Your task to perform on an android device: What's the weather going to be this weekend? Image 0: 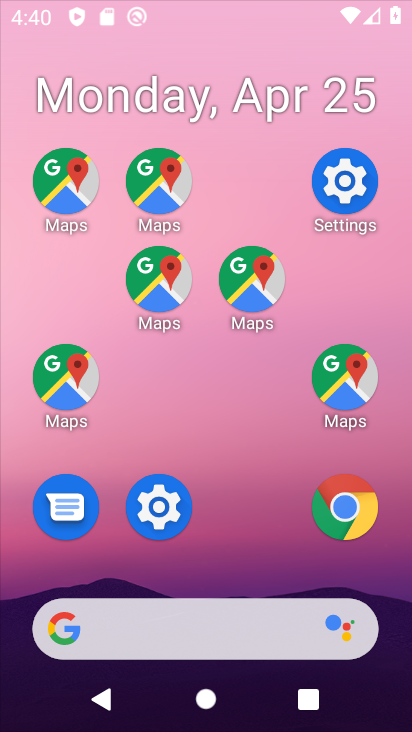
Step 0: click (330, 7)
Your task to perform on an android device: What's the weather going to be this weekend? Image 1: 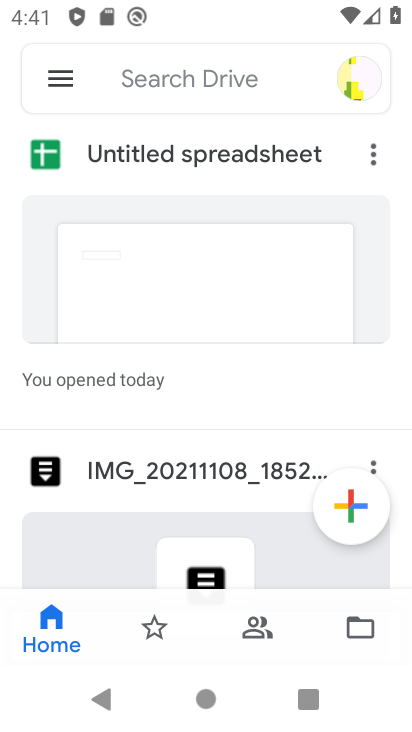
Step 1: press home button
Your task to perform on an android device: What's the weather going to be this weekend? Image 2: 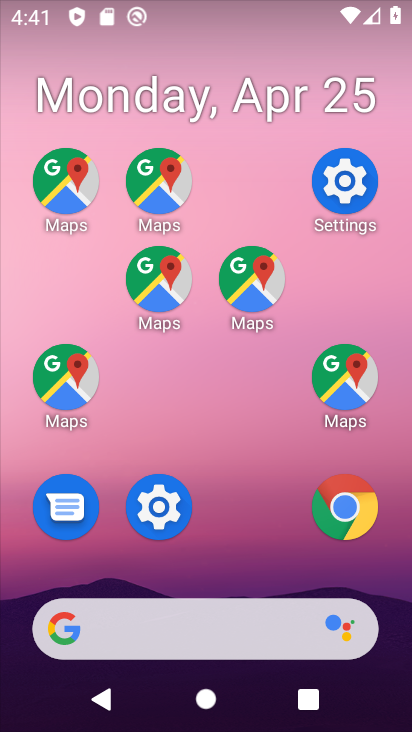
Step 2: drag from (226, 708) to (195, 163)
Your task to perform on an android device: What's the weather going to be this weekend? Image 3: 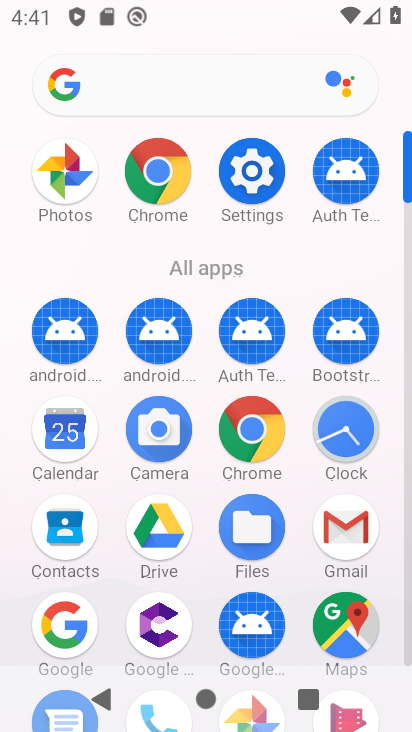
Step 3: press home button
Your task to perform on an android device: What's the weather going to be this weekend? Image 4: 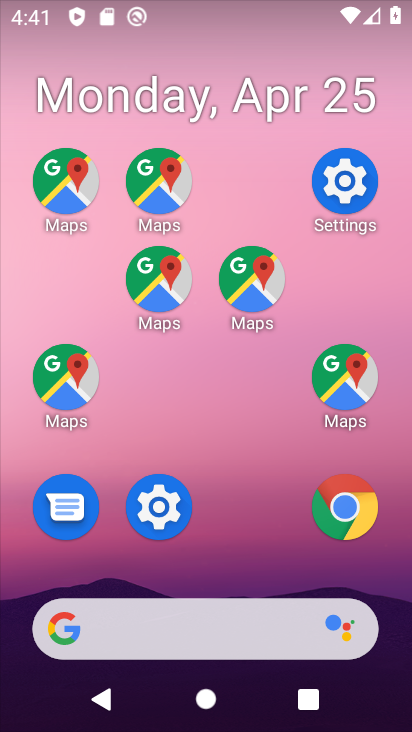
Step 4: drag from (8, 188) to (406, 391)
Your task to perform on an android device: What's the weather going to be this weekend? Image 5: 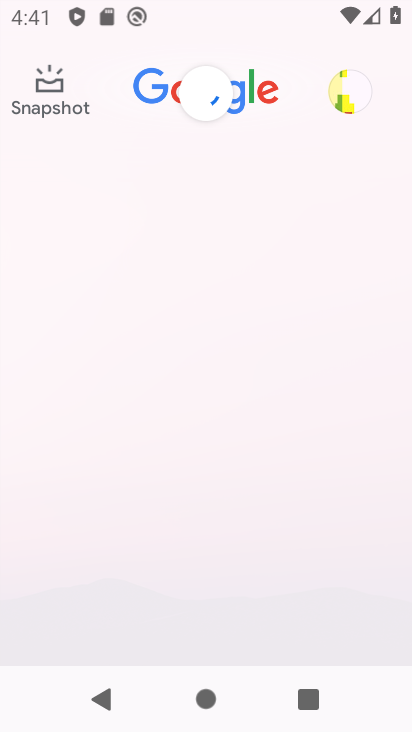
Step 5: drag from (18, 233) to (361, 417)
Your task to perform on an android device: What's the weather going to be this weekend? Image 6: 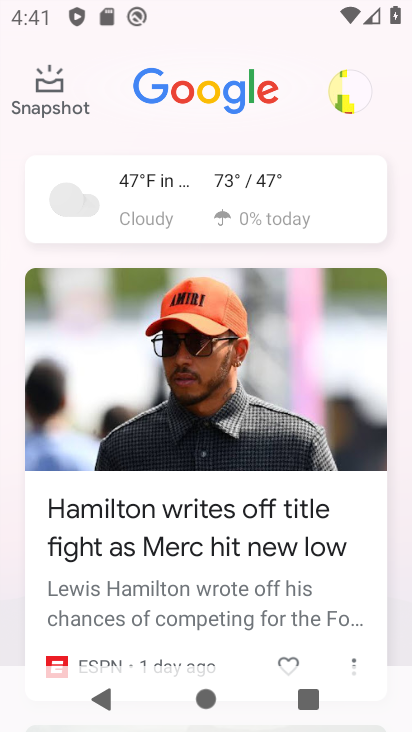
Step 6: click (252, 174)
Your task to perform on an android device: What's the weather going to be this weekend? Image 7: 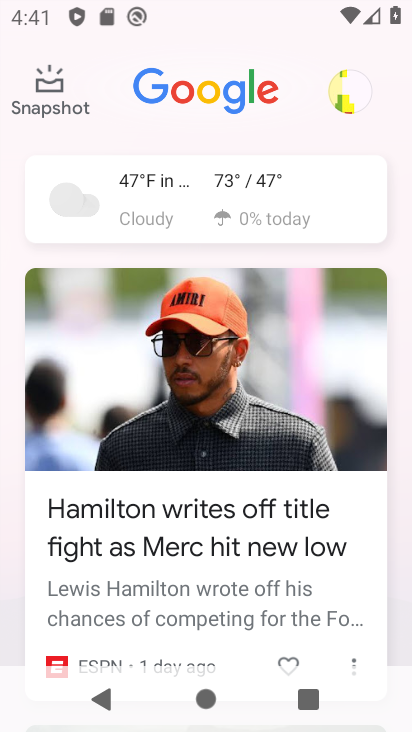
Step 7: click (252, 174)
Your task to perform on an android device: What's the weather going to be this weekend? Image 8: 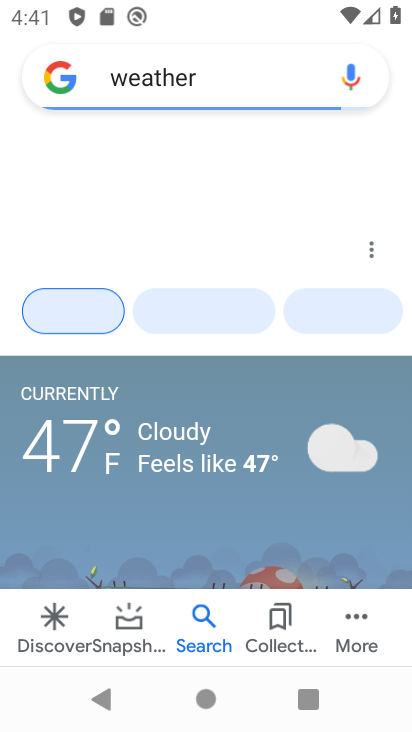
Step 8: click (220, 208)
Your task to perform on an android device: What's the weather going to be this weekend? Image 9: 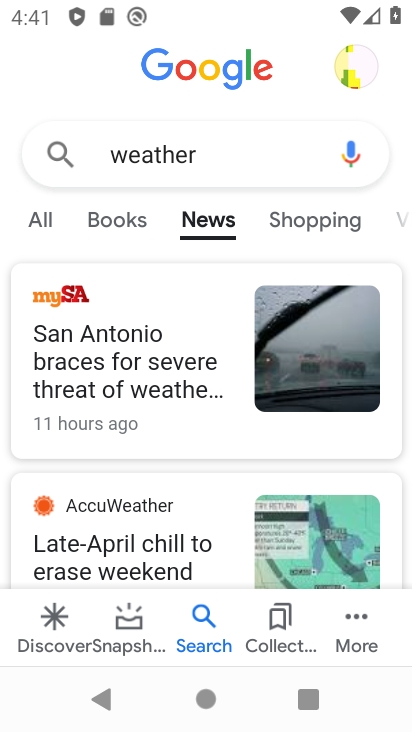
Step 9: click (43, 224)
Your task to perform on an android device: What's the weather going to be this weekend? Image 10: 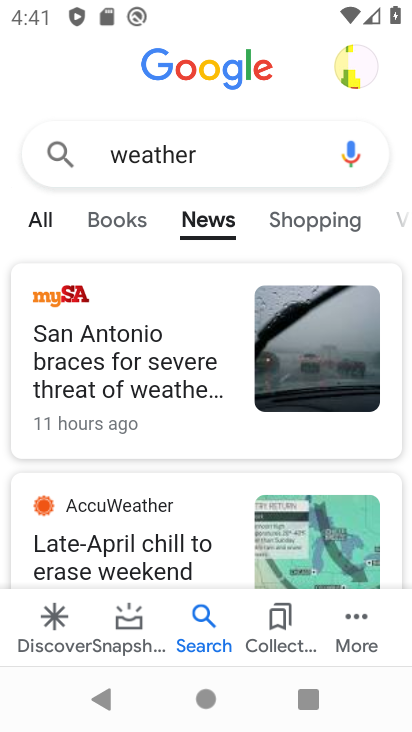
Step 10: click (43, 224)
Your task to perform on an android device: What's the weather going to be this weekend? Image 11: 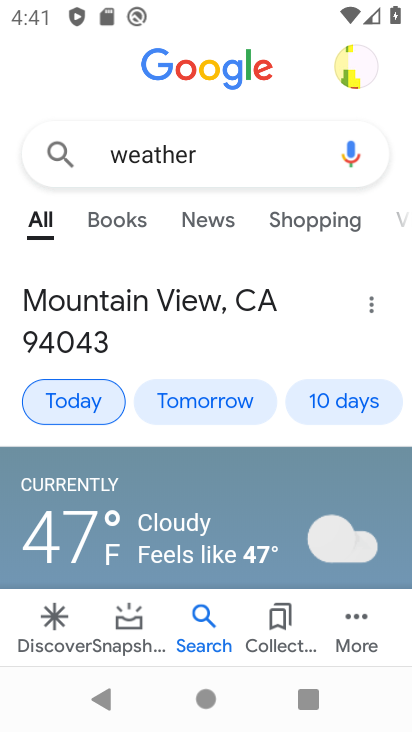
Step 11: click (334, 399)
Your task to perform on an android device: What's the weather going to be this weekend? Image 12: 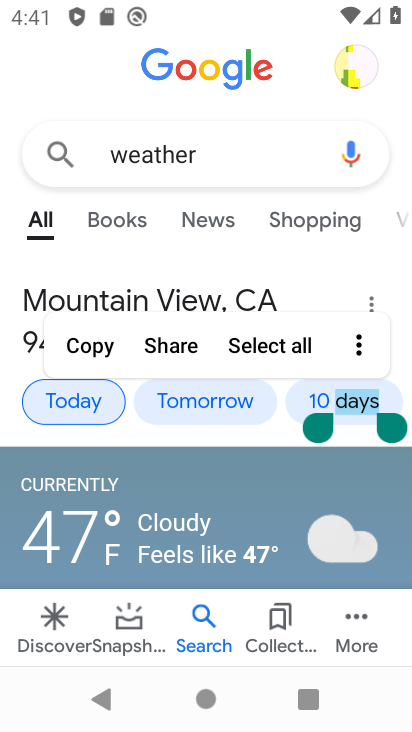
Step 12: task complete